Your task to perform on an android device: Check the news Image 0: 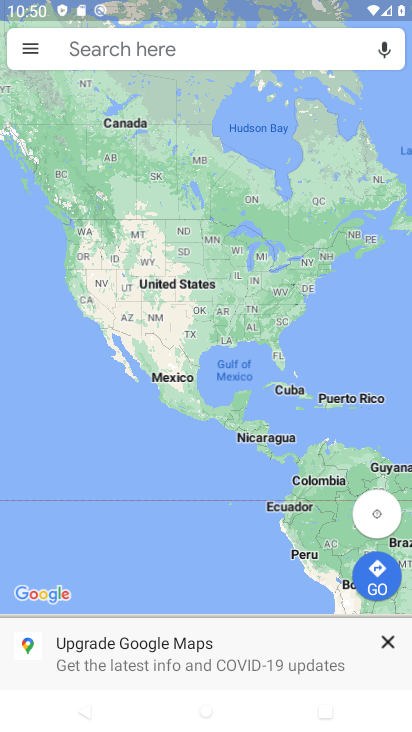
Step 0: press home button
Your task to perform on an android device: Check the news Image 1: 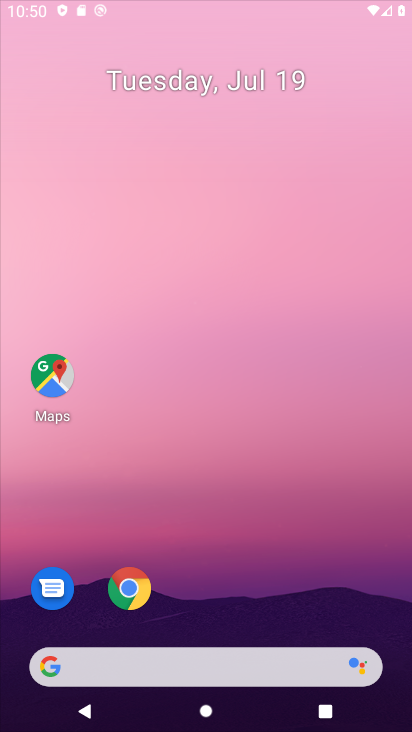
Step 1: drag from (397, 667) to (264, 7)
Your task to perform on an android device: Check the news Image 2: 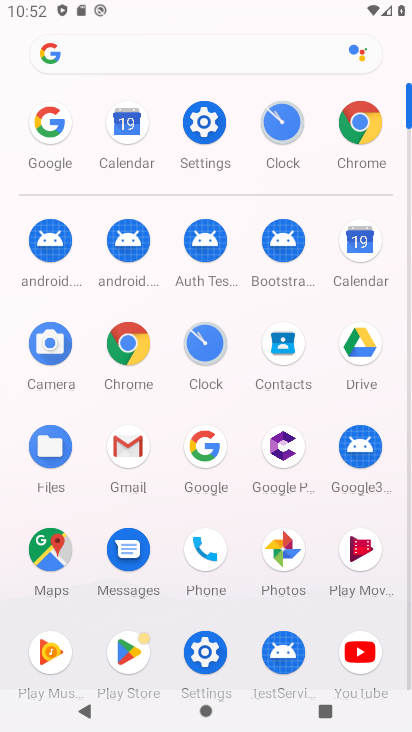
Step 2: click (213, 444)
Your task to perform on an android device: Check the news Image 3: 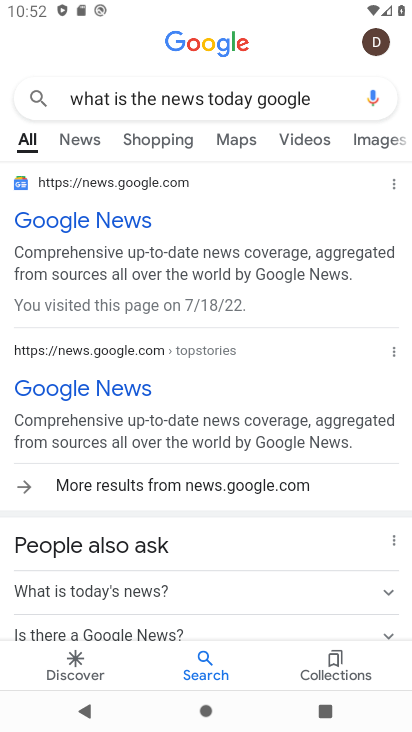
Step 3: press back button
Your task to perform on an android device: Check the news Image 4: 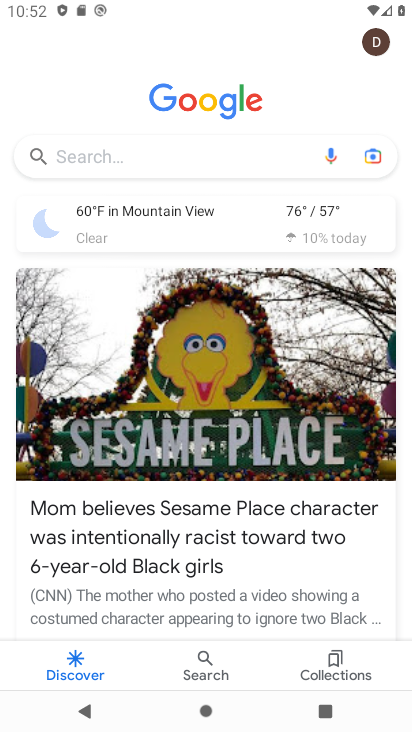
Step 4: click (138, 159)
Your task to perform on an android device: Check the news Image 5: 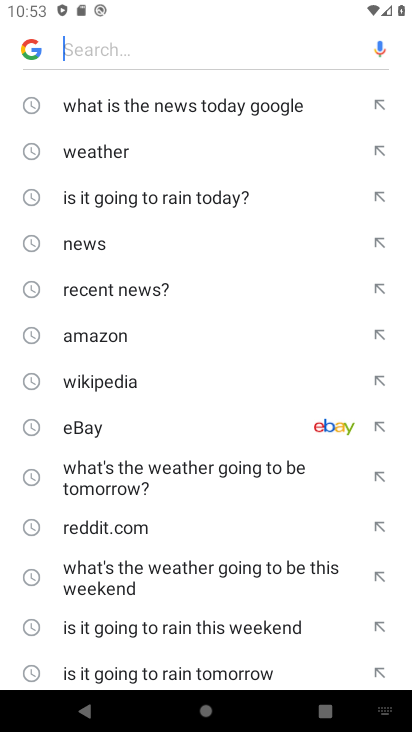
Step 5: type "Check the news"
Your task to perform on an android device: Check the news Image 6: 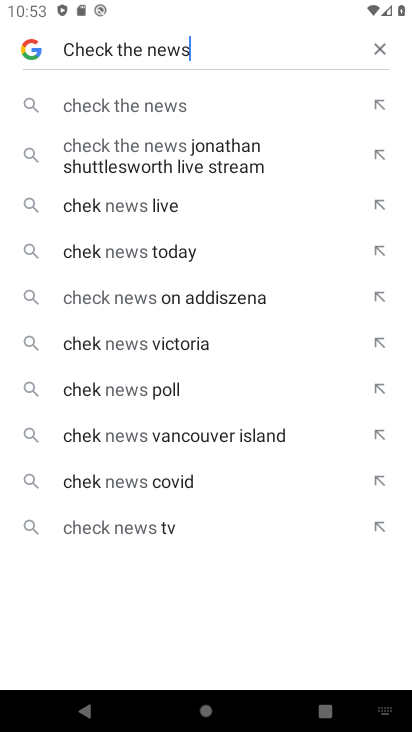
Step 6: click (116, 91)
Your task to perform on an android device: Check the news Image 7: 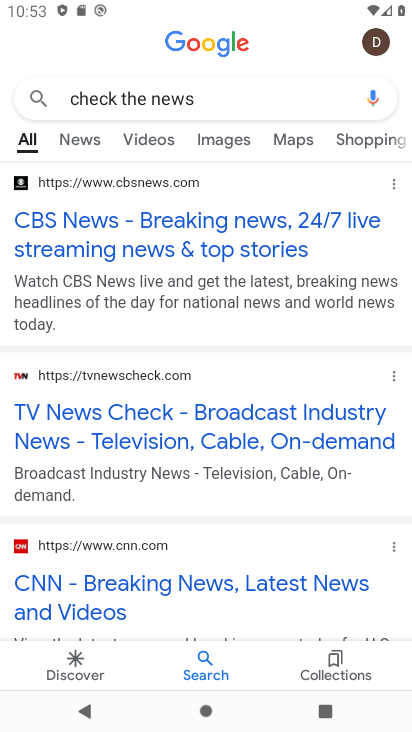
Step 7: task complete